Your task to perform on an android device: Do I have any events this weekend? Image 0: 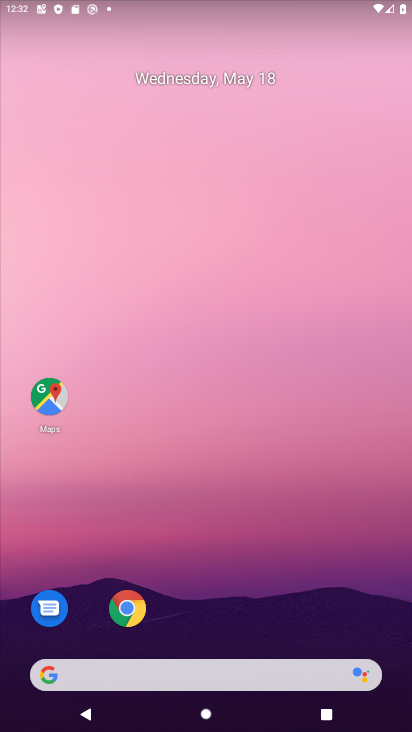
Step 0: drag from (265, 621) to (297, 280)
Your task to perform on an android device: Do I have any events this weekend? Image 1: 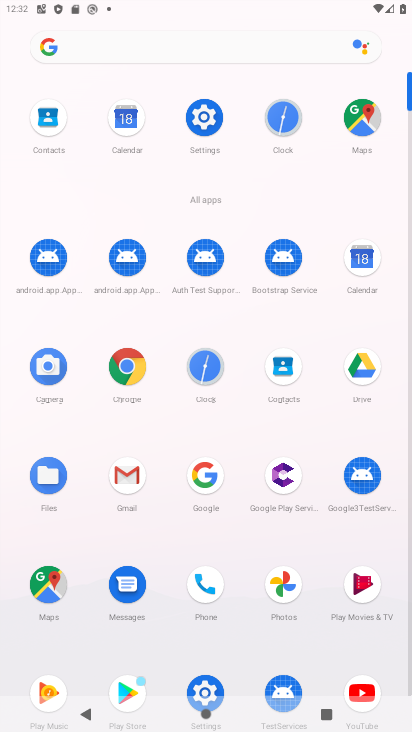
Step 1: click (364, 259)
Your task to perform on an android device: Do I have any events this weekend? Image 2: 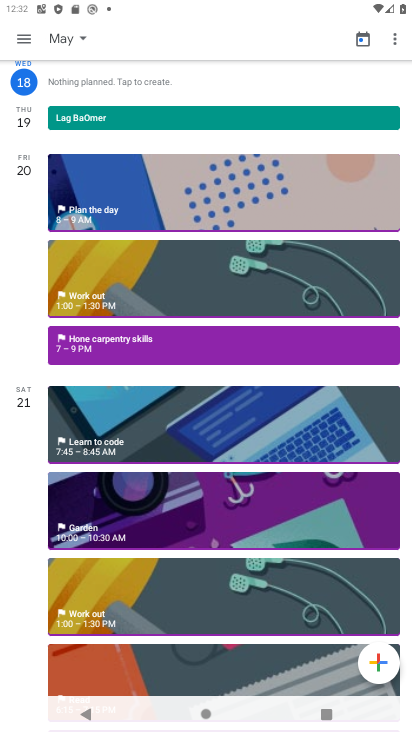
Step 2: task complete